Your task to perform on an android device: Show me recent news Image 0: 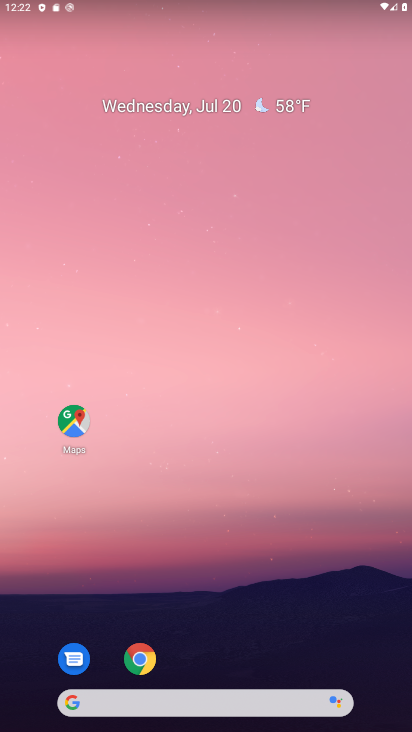
Step 0: drag from (12, 324) to (406, 345)
Your task to perform on an android device: Show me recent news Image 1: 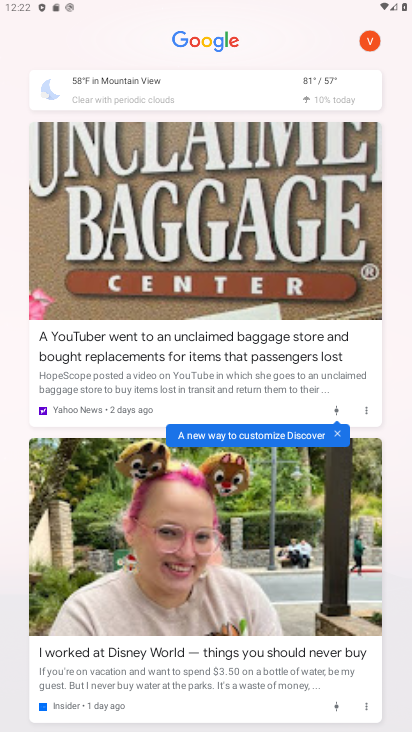
Step 1: task complete